Your task to perform on an android device: refresh tabs in the chrome app Image 0: 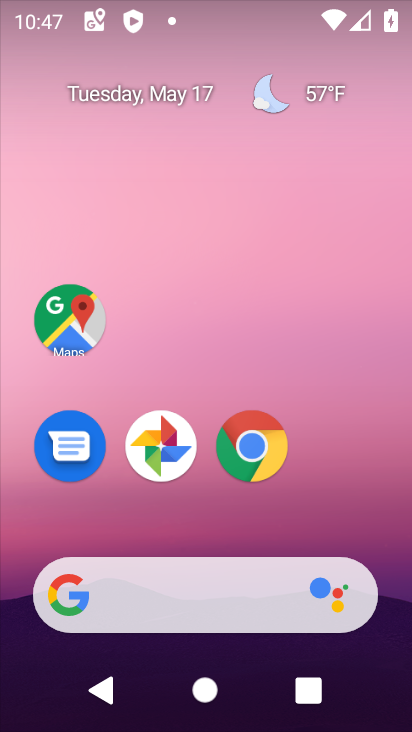
Step 0: click (229, 460)
Your task to perform on an android device: refresh tabs in the chrome app Image 1: 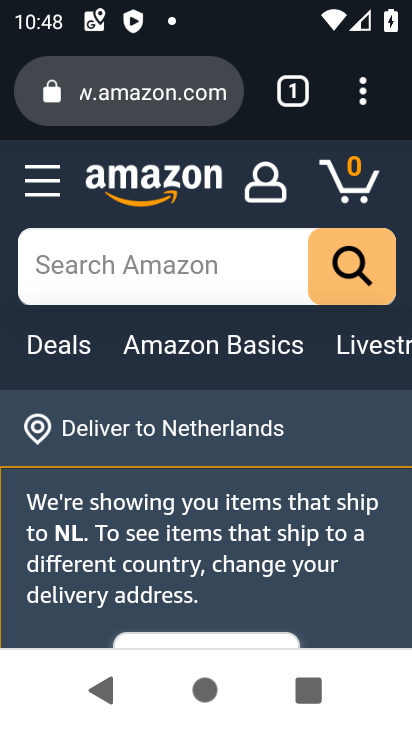
Step 1: task complete